Your task to perform on an android device: Open notification settings Image 0: 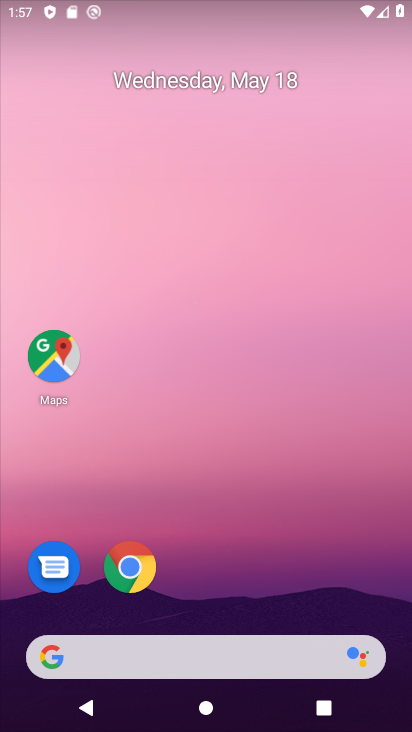
Step 0: drag from (248, 464) to (210, 150)
Your task to perform on an android device: Open notification settings Image 1: 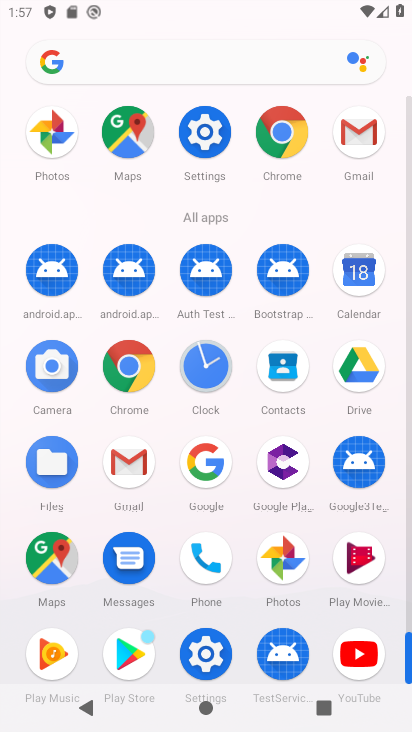
Step 1: click (196, 134)
Your task to perform on an android device: Open notification settings Image 2: 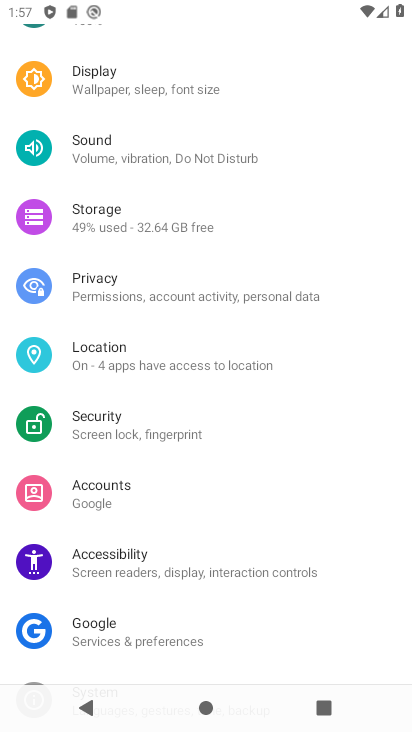
Step 2: drag from (152, 112) to (156, 420)
Your task to perform on an android device: Open notification settings Image 3: 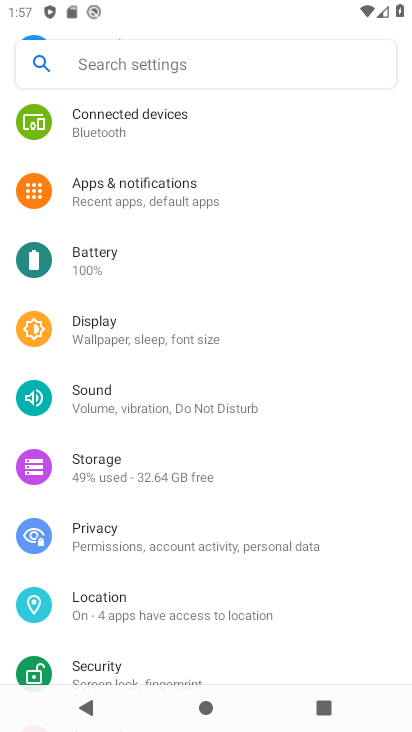
Step 3: click (148, 205)
Your task to perform on an android device: Open notification settings Image 4: 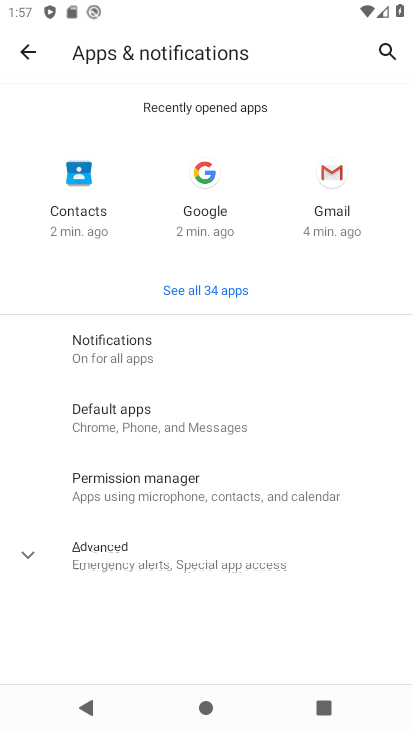
Step 4: task complete